Your task to perform on an android device: turn off javascript in the chrome app Image 0: 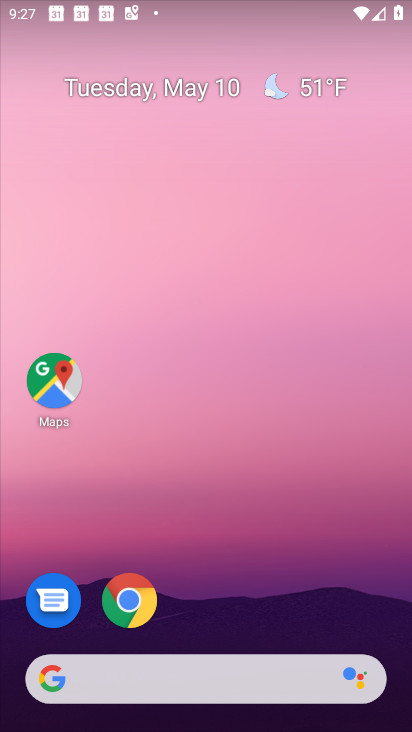
Step 0: click (144, 608)
Your task to perform on an android device: turn off javascript in the chrome app Image 1: 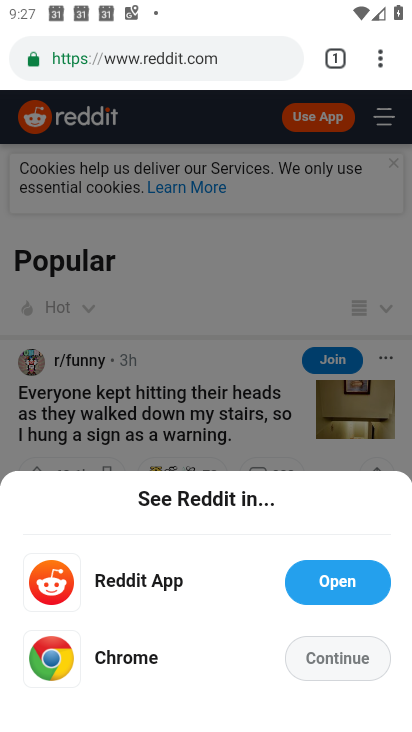
Step 1: click (331, 663)
Your task to perform on an android device: turn off javascript in the chrome app Image 2: 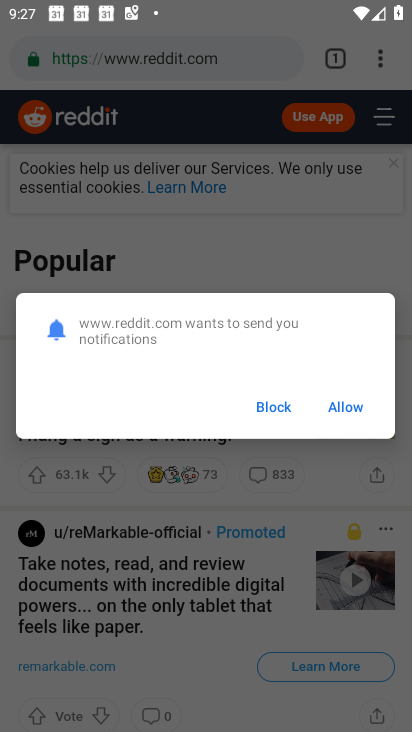
Step 2: click (278, 401)
Your task to perform on an android device: turn off javascript in the chrome app Image 3: 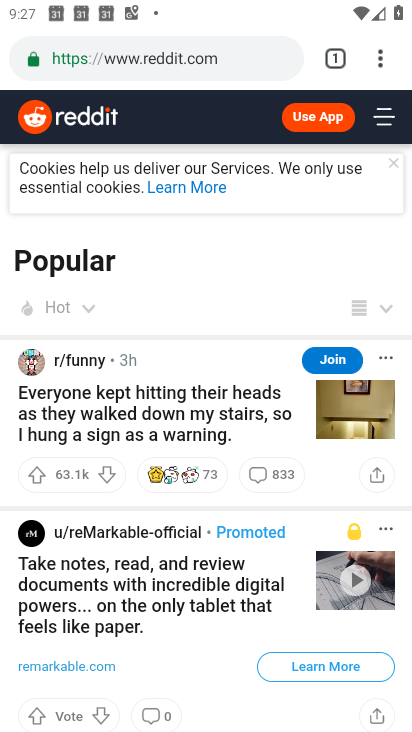
Step 3: click (373, 59)
Your task to perform on an android device: turn off javascript in the chrome app Image 4: 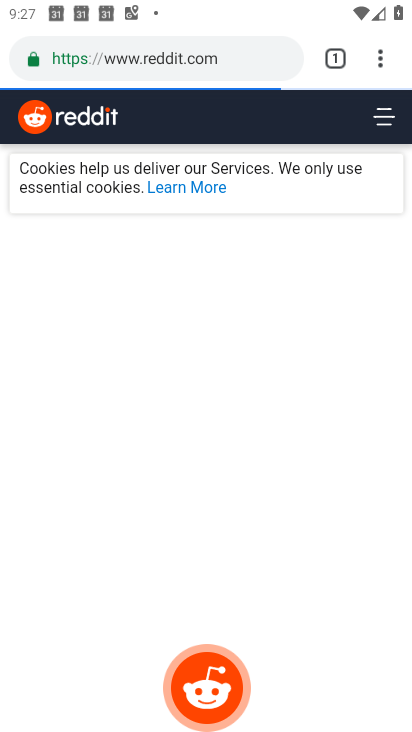
Step 4: click (381, 62)
Your task to perform on an android device: turn off javascript in the chrome app Image 5: 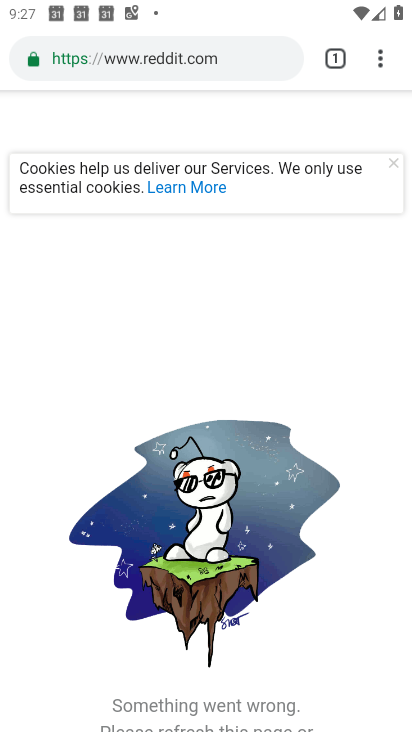
Step 5: click (378, 71)
Your task to perform on an android device: turn off javascript in the chrome app Image 6: 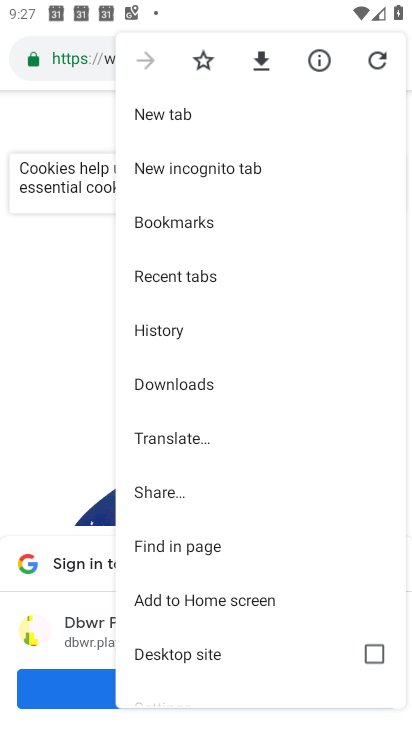
Step 6: drag from (246, 615) to (262, 222)
Your task to perform on an android device: turn off javascript in the chrome app Image 7: 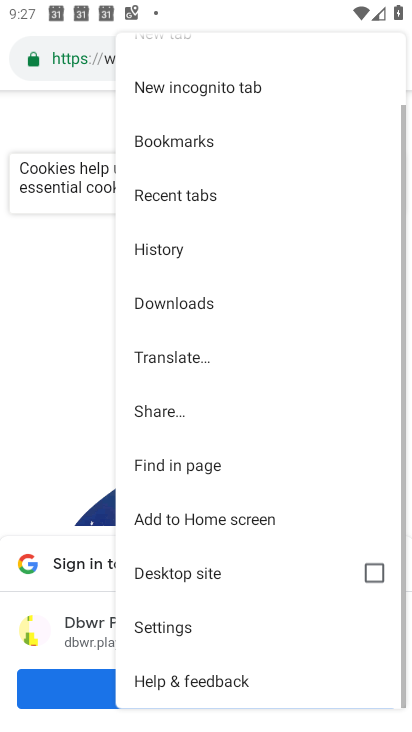
Step 7: click (178, 601)
Your task to perform on an android device: turn off javascript in the chrome app Image 8: 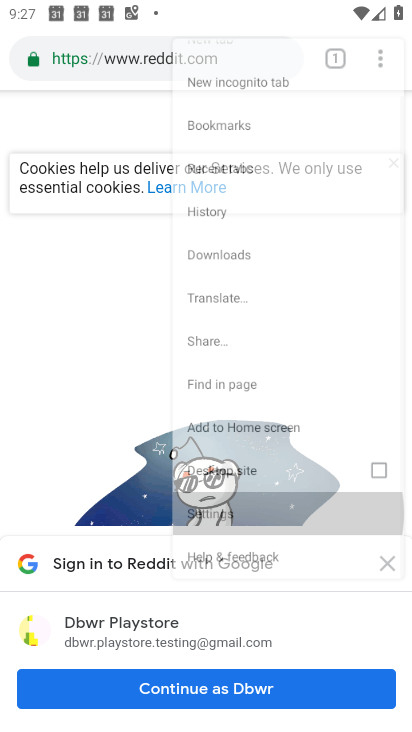
Step 8: click (170, 623)
Your task to perform on an android device: turn off javascript in the chrome app Image 9: 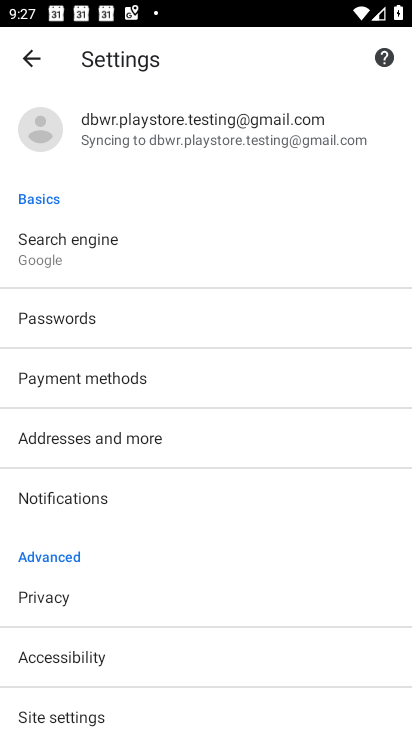
Step 9: drag from (140, 602) to (144, 119)
Your task to perform on an android device: turn off javascript in the chrome app Image 10: 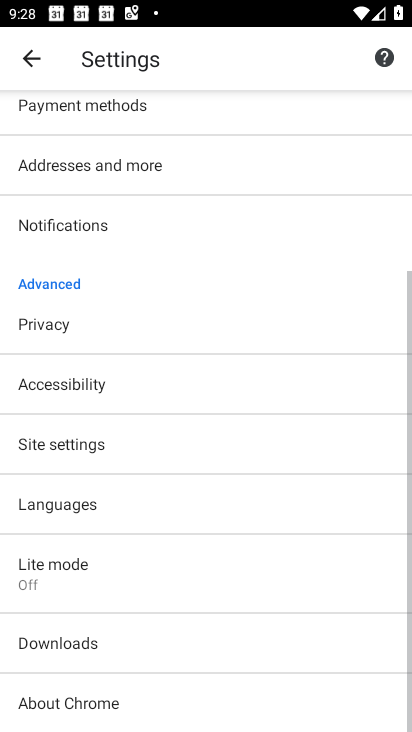
Step 10: drag from (107, 617) to (63, 308)
Your task to perform on an android device: turn off javascript in the chrome app Image 11: 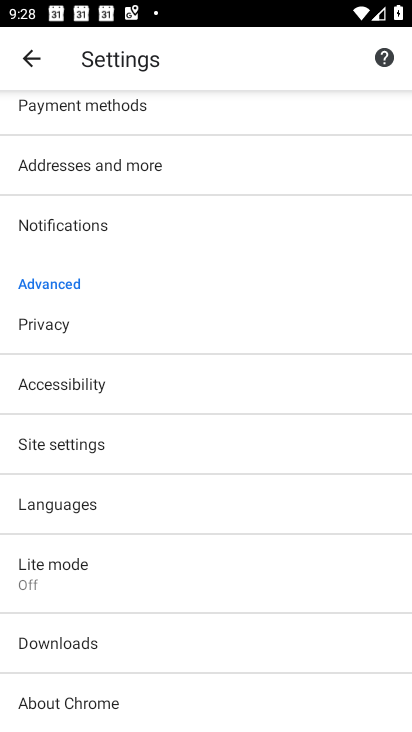
Step 11: click (226, 313)
Your task to perform on an android device: turn off javascript in the chrome app Image 12: 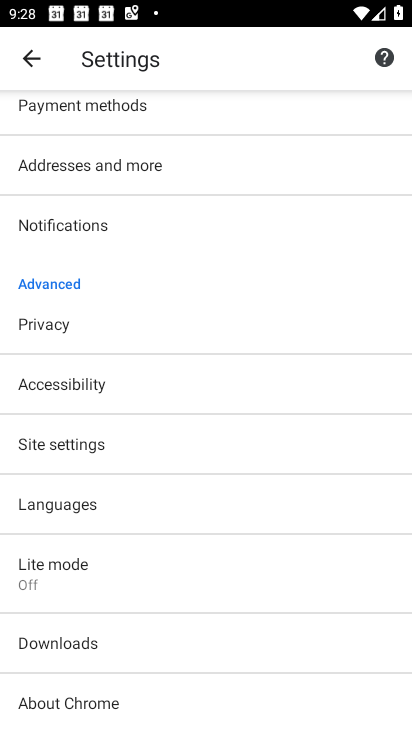
Step 12: click (78, 442)
Your task to perform on an android device: turn off javascript in the chrome app Image 13: 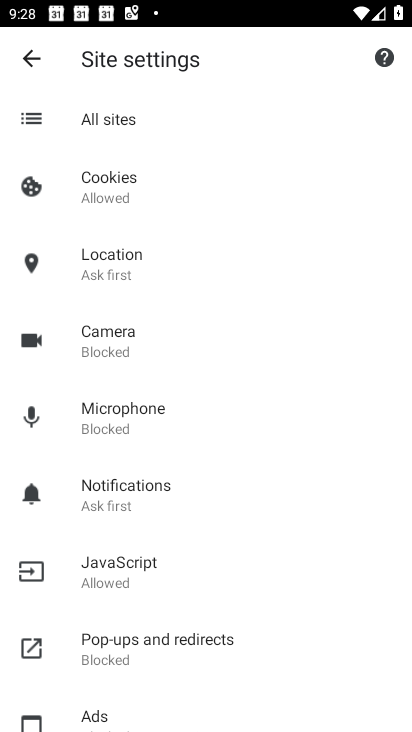
Step 13: drag from (199, 576) to (182, 164)
Your task to perform on an android device: turn off javascript in the chrome app Image 14: 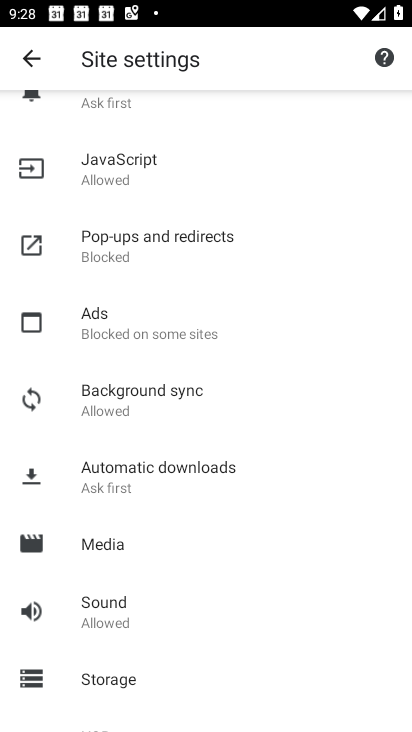
Step 14: drag from (134, 619) to (79, 351)
Your task to perform on an android device: turn off javascript in the chrome app Image 15: 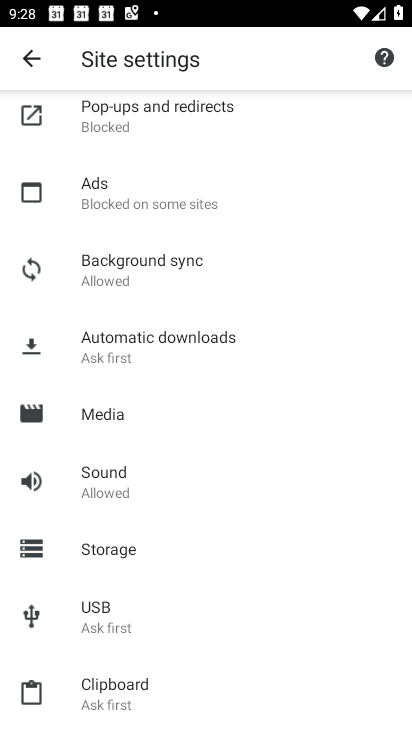
Step 15: drag from (131, 629) to (194, 580)
Your task to perform on an android device: turn off javascript in the chrome app Image 16: 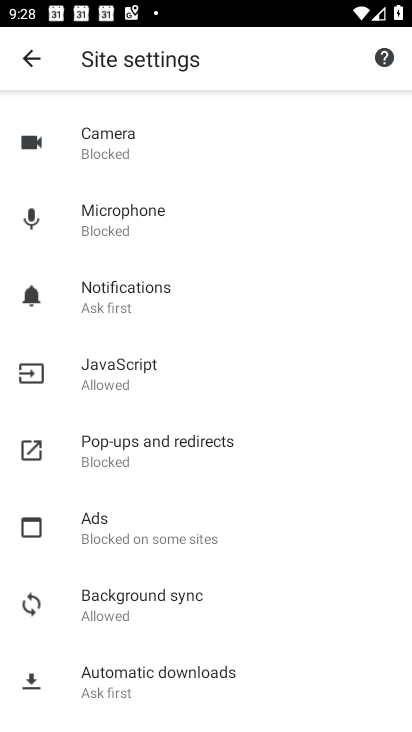
Step 16: drag from (193, 269) to (193, 572)
Your task to perform on an android device: turn off javascript in the chrome app Image 17: 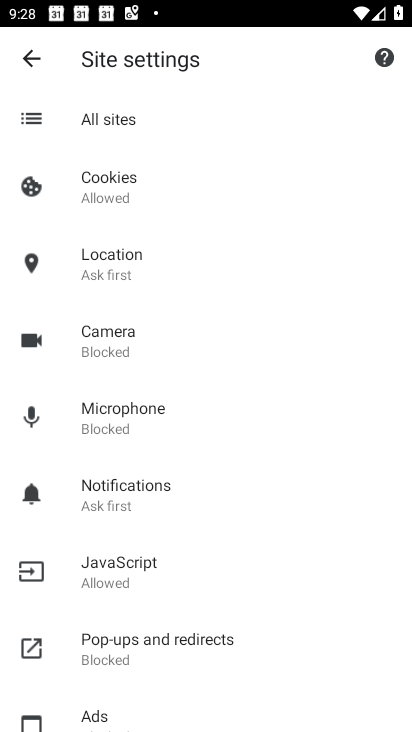
Step 17: drag from (193, 539) to (206, 387)
Your task to perform on an android device: turn off javascript in the chrome app Image 18: 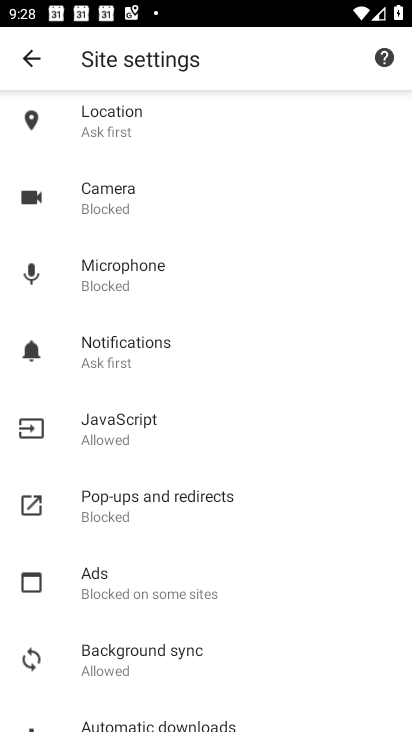
Step 18: click (147, 418)
Your task to perform on an android device: turn off javascript in the chrome app Image 19: 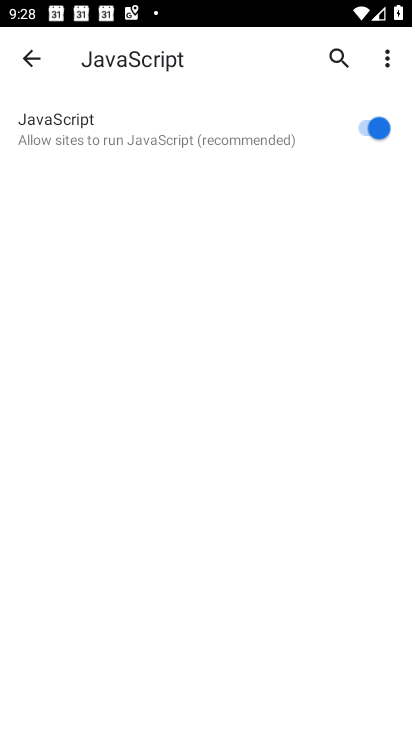
Step 19: click (369, 131)
Your task to perform on an android device: turn off javascript in the chrome app Image 20: 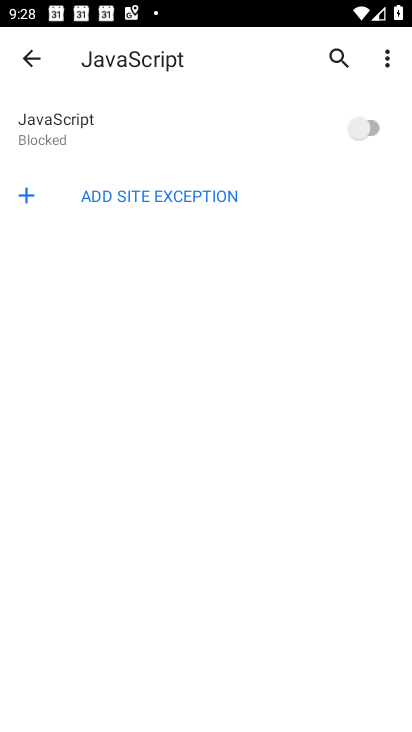
Step 20: task complete